Your task to perform on an android device: turn notification dots on Image 0: 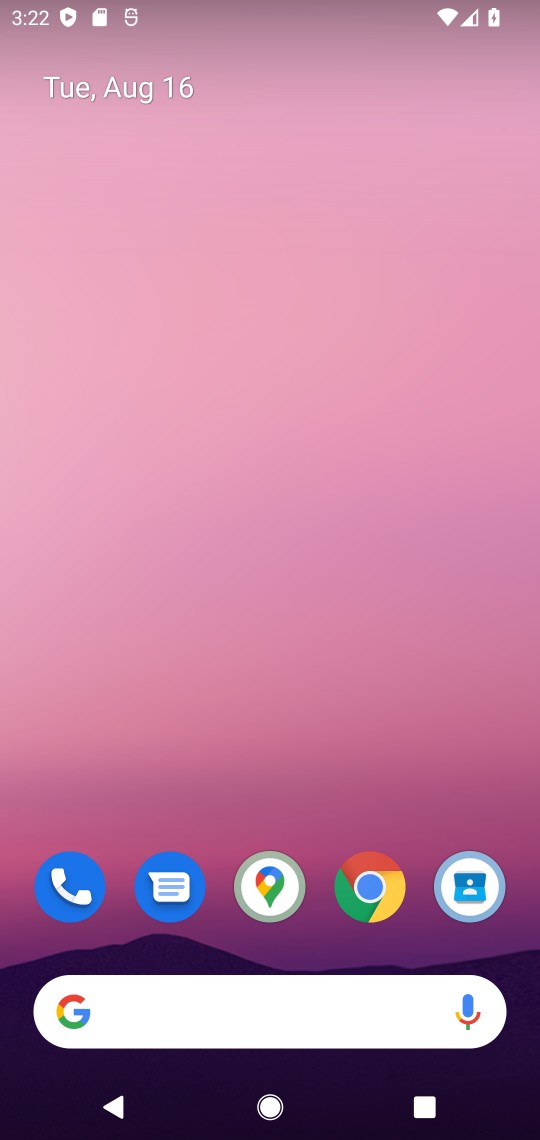
Step 0: drag from (333, 804) to (366, 127)
Your task to perform on an android device: turn notification dots on Image 1: 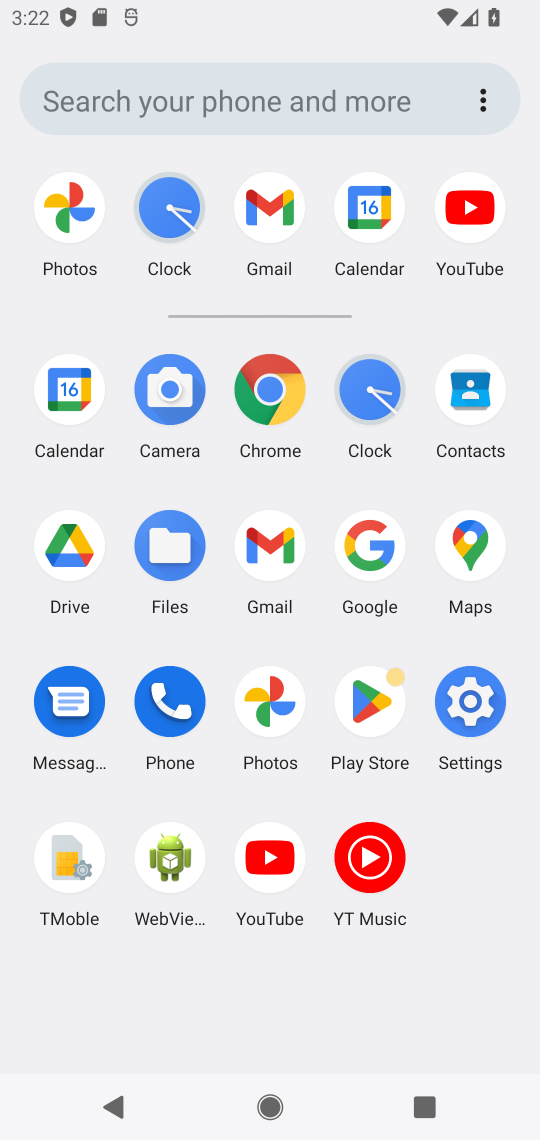
Step 1: click (470, 695)
Your task to perform on an android device: turn notification dots on Image 2: 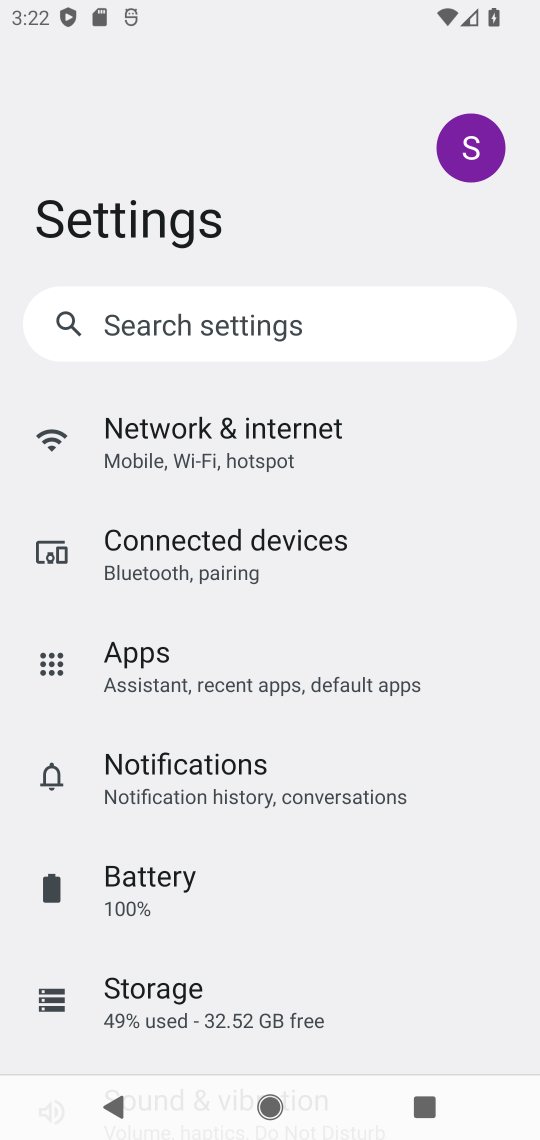
Step 2: click (110, 787)
Your task to perform on an android device: turn notification dots on Image 3: 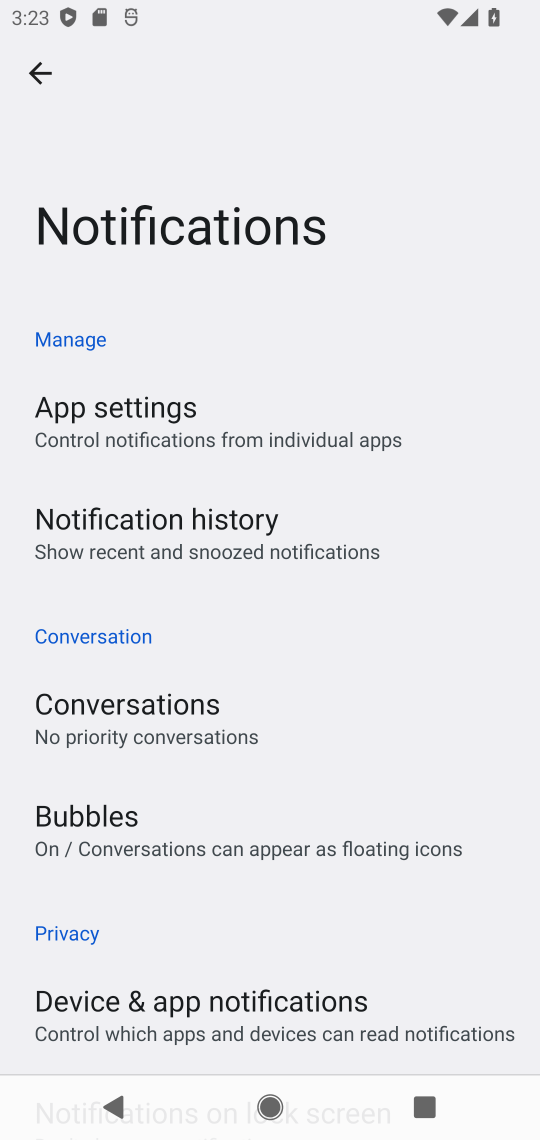
Step 3: task complete